Your task to perform on an android device: turn on notifications settings in the gmail app Image 0: 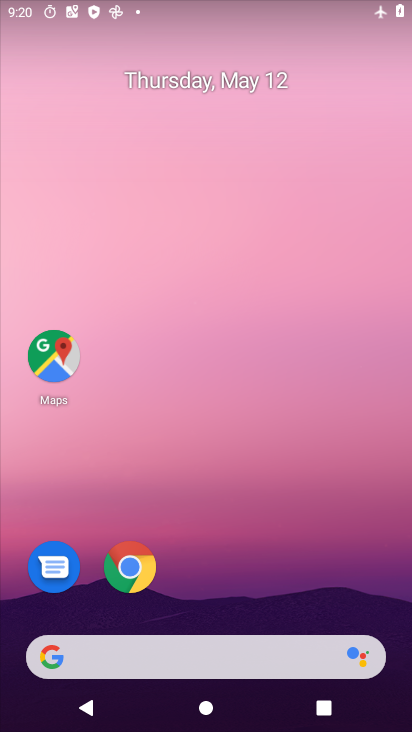
Step 0: drag from (245, 636) to (270, 178)
Your task to perform on an android device: turn on notifications settings in the gmail app Image 1: 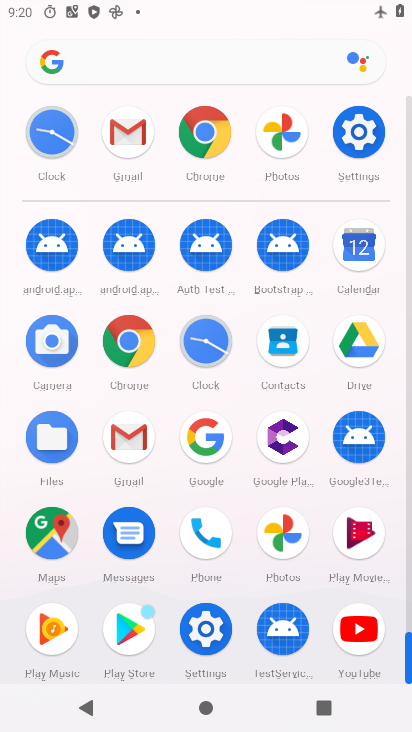
Step 1: click (137, 444)
Your task to perform on an android device: turn on notifications settings in the gmail app Image 2: 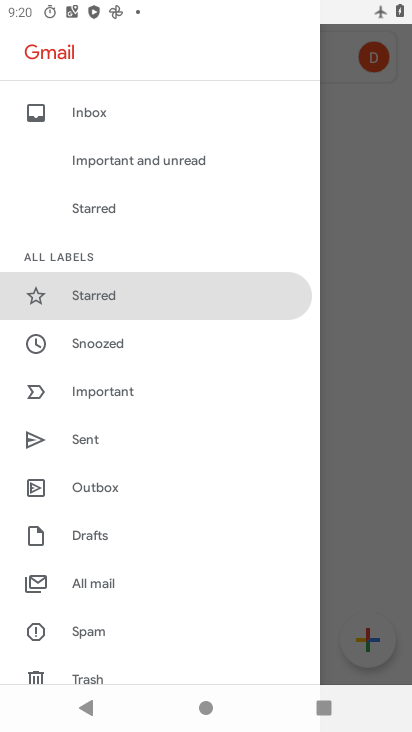
Step 2: drag from (132, 536) to (160, 209)
Your task to perform on an android device: turn on notifications settings in the gmail app Image 3: 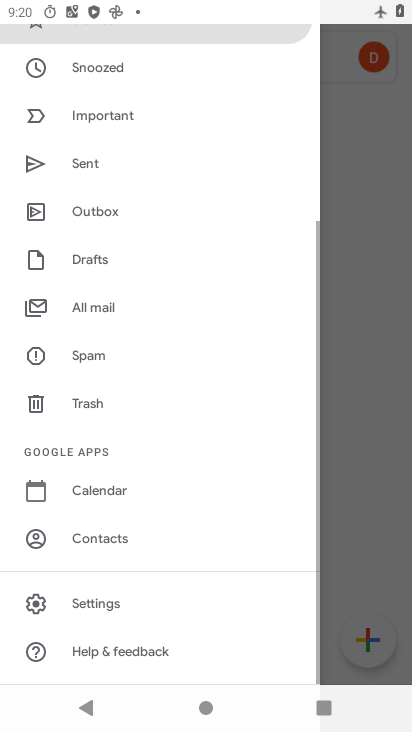
Step 3: click (103, 605)
Your task to perform on an android device: turn on notifications settings in the gmail app Image 4: 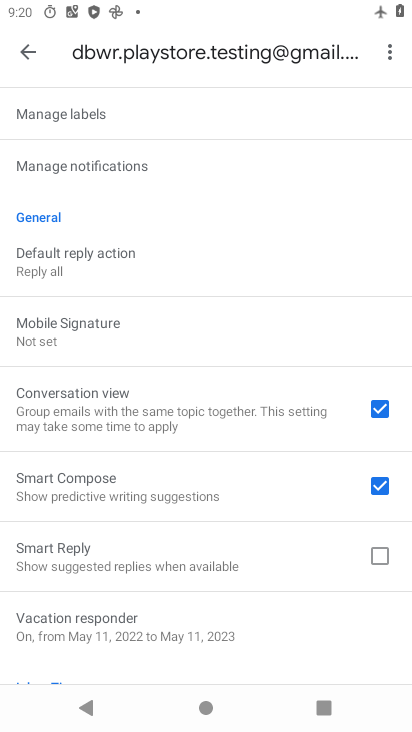
Step 4: drag from (167, 291) to (176, 498)
Your task to perform on an android device: turn on notifications settings in the gmail app Image 5: 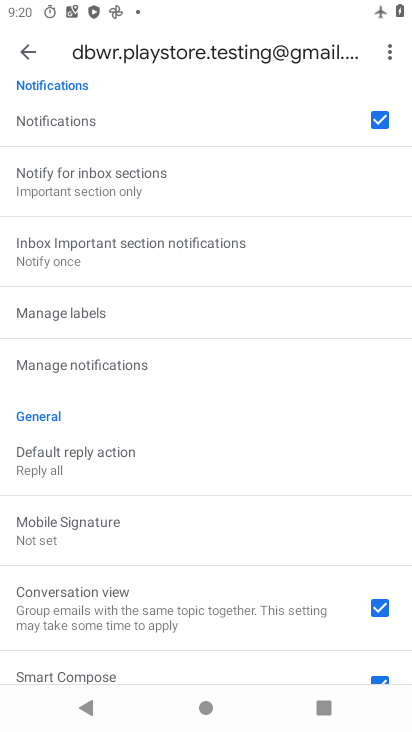
Step 5: click (142, 368)
Your task to perform on an android device: turn on notifications settings in the gmail app Image 6: 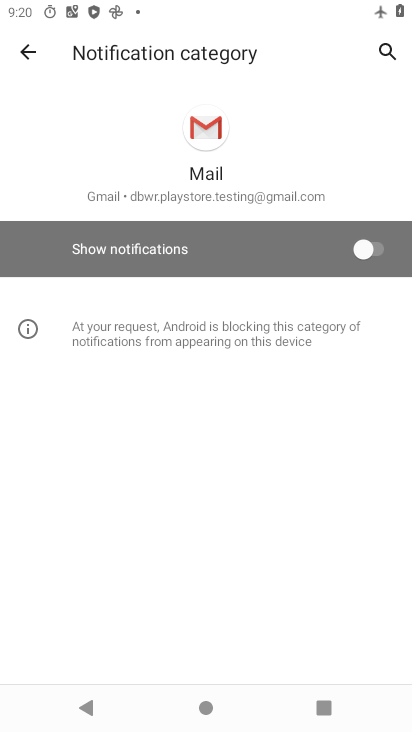
Step 6: click (266, 247)
Your task to perform on an android device: turn on notifications settings in the gmail app Image 7: 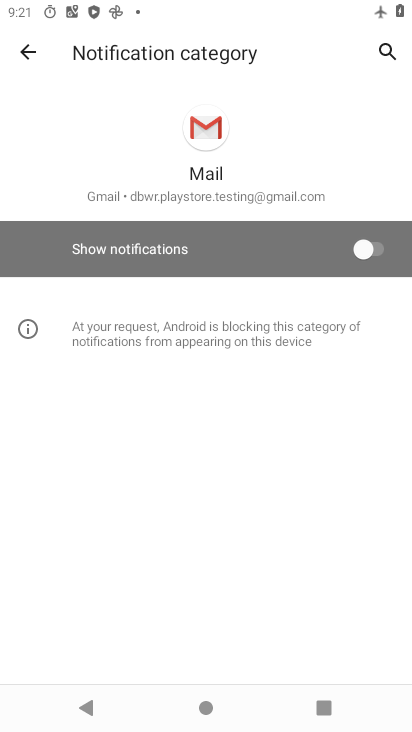
Step 7: click (369, 243)
Your task to perform on an android device: turn on notifications settings in the gmail app Image 8: 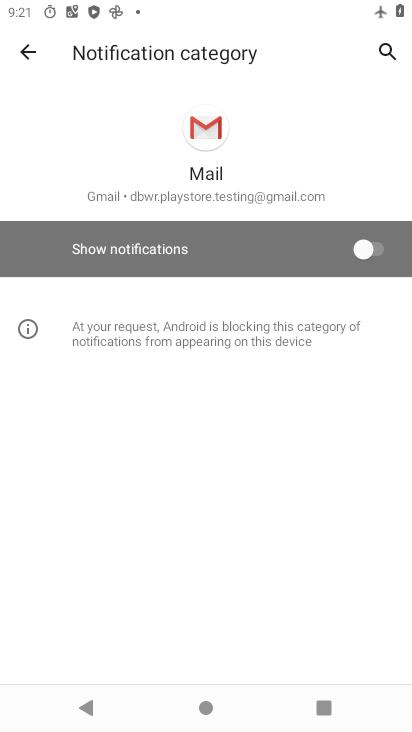
Step 8: click (387, 251)
Your task to perform on an android device: turn on notifications settings in the gmail app Image 9: 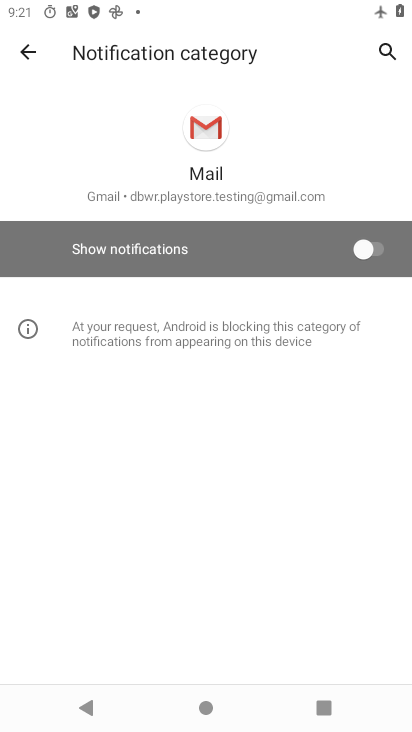
Step 9: click (387, 251)
Your task to perform on an android device: turn on notifications settings in the gmail app Image 10: 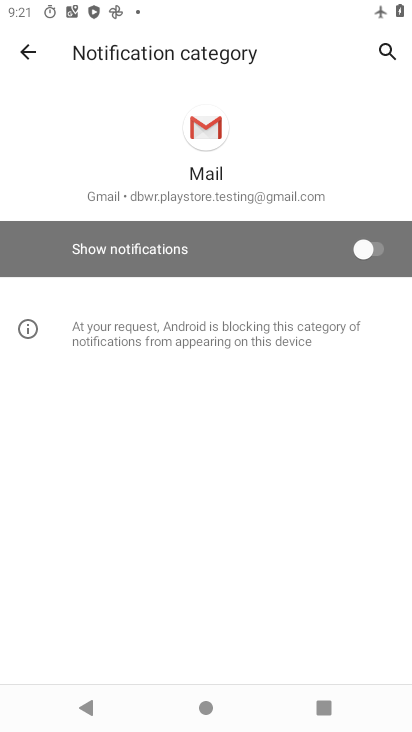
Step 10: task complete